Your task to perform on an android device: change keyboard looks Image 0: 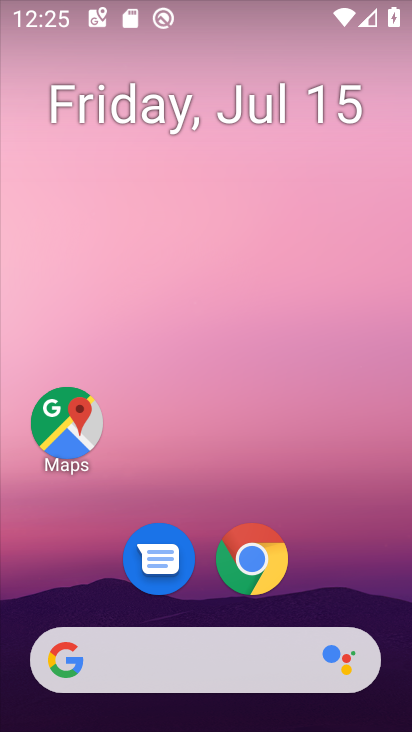
Step 0: drag from (370, 581) to (399, 88)
Your task to perform on an android device: change keyboard looks Image 1: 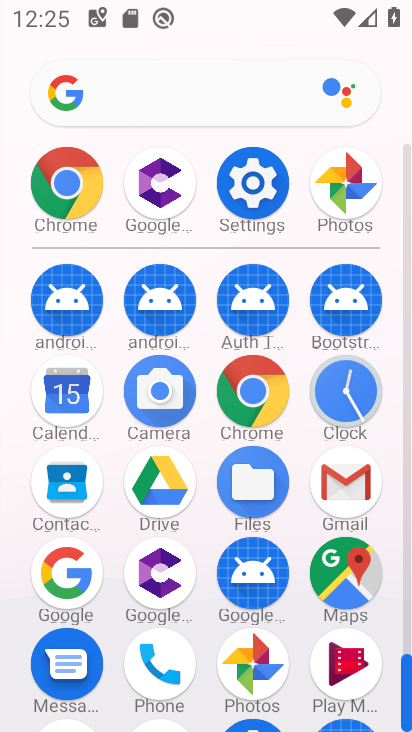
Step 1: click (261, 177)
Your task to perform on an android device: change keyboard looks Image 2: 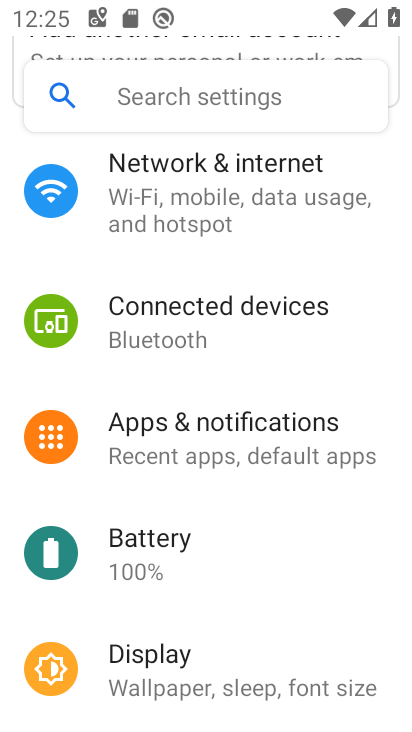
Step 2: drag from (360, 279) to (374, 380)
Your task to perform on an android device: change keyboard looks Image 3: 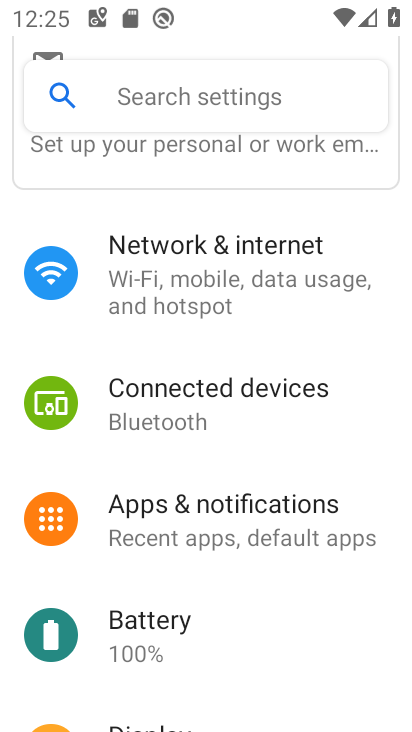
Step 3: drag from (371, 245) to (384, 390)
Your task to perform on an android device: change keyboard looks Image 4: 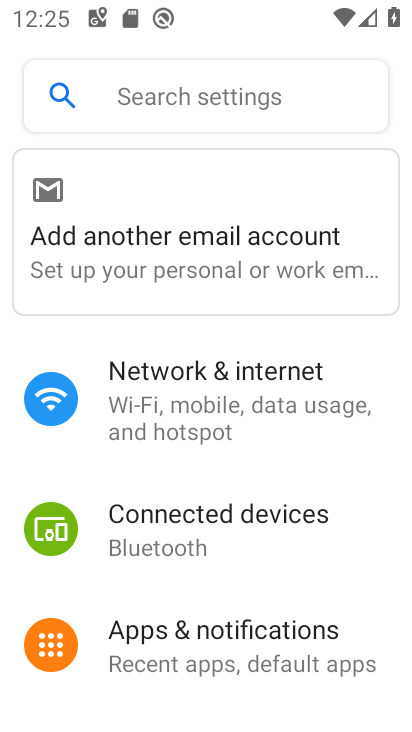
Step 4: drag from (371, 498) to (376, 435)
Your task to perform on an android device: change keyboard looks Image 5: 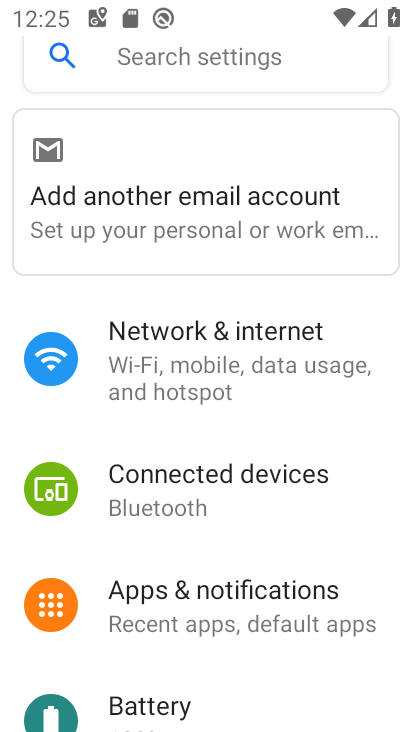
Step 5: drag from (370, 502) to (371, 405)
Your task to perform on an android device: change keyboard looks Image 6: 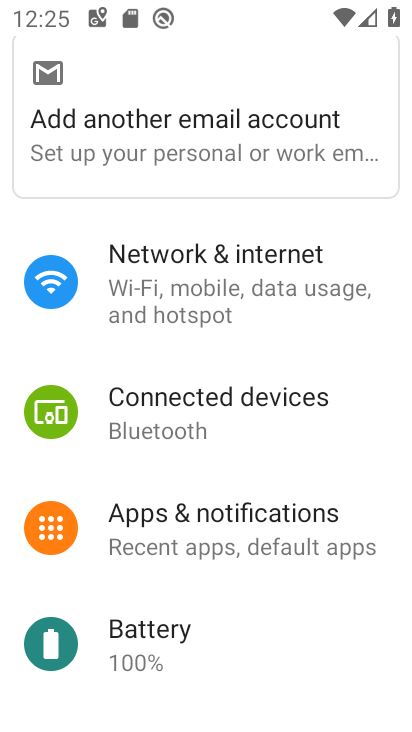
Step 6: drag from (363, 604) to (366, 525)
Your task to perform on an android device: change keyboard looks Image 7: 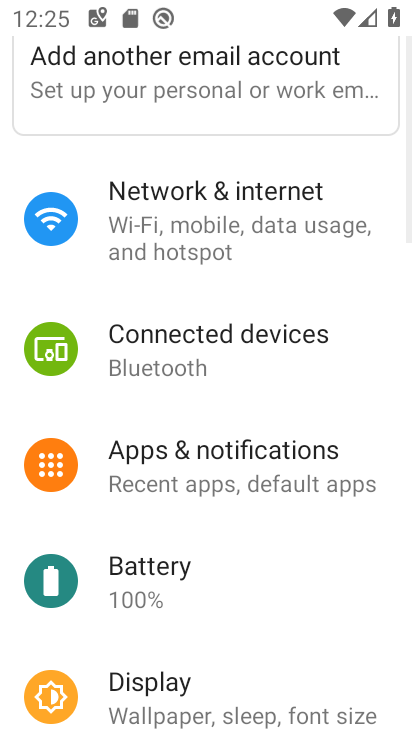
Step 7: drag from (355, 582) to (363, 515)
Your task to perform on an android device: change keyboard looks Image 8: 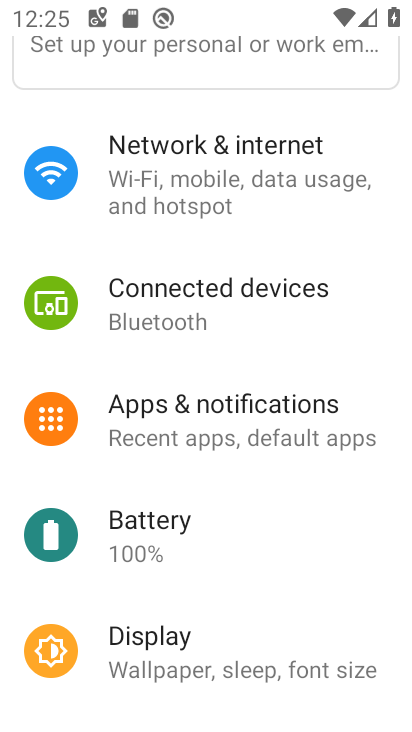
Step 8: drag from (347, 554) to (347, 470)
Your task to perform on an android device: change keyboard looks Image 9: 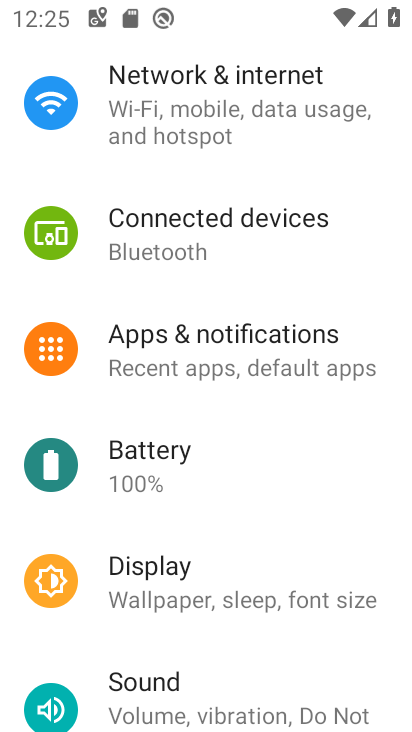
Step 9: drag from (340, 502) to (345, 444)
Your task to perform on an android device: change keyboard looks Image 10: 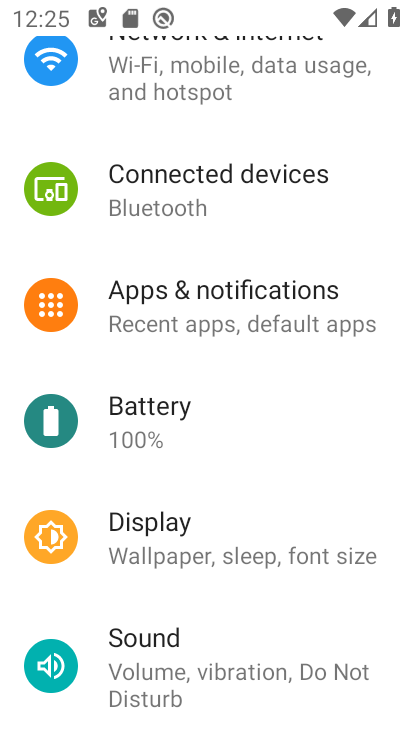
Step 10: drag from (346, 580) to (351, 520)
Your task to perform on an android device: change keyboard looks Image 11: 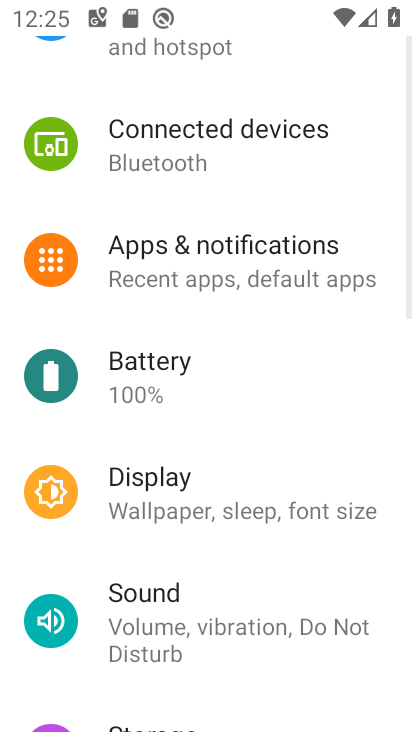
Step 11: drag from (357, 565) to (366, 493)
Your task to perform on an android device: change keyboard looks Image 12: 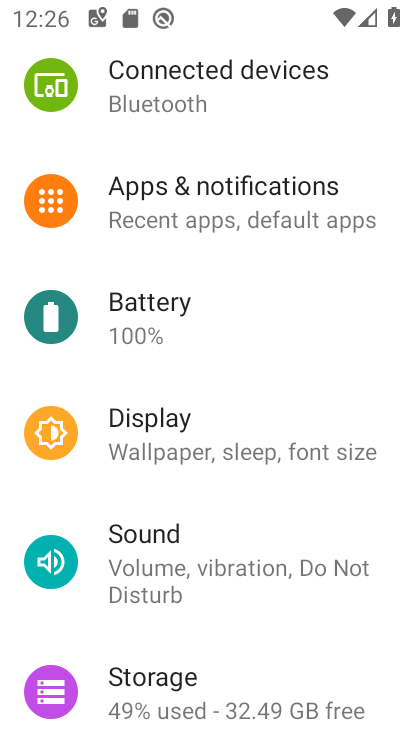
Step 12: drag from (368, 592) to (375, 524)
Your task to perform on an android device: change keyboard looks Image 13: 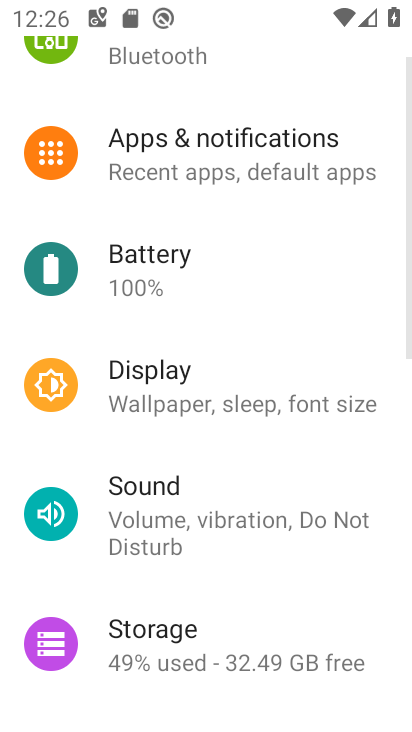
Step 13: drag from (364, 598) to (364, 513)
Your task to perform on an android device: change keyboard looks Image 14: 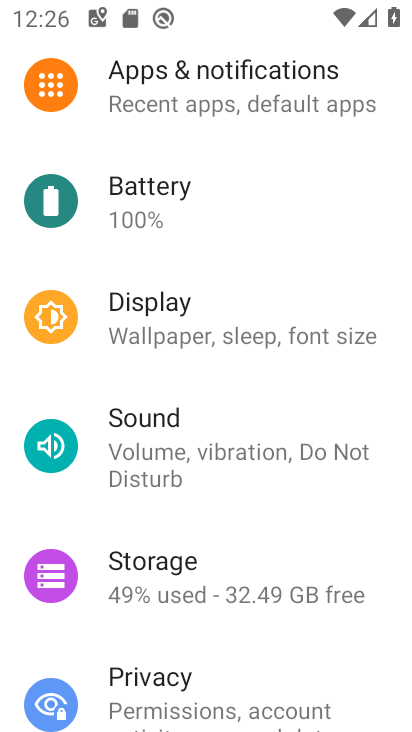
Step 14: drag from (333, 527) to (340, 463)
Your task to perform on an android device: change keyboard looks Image 15: 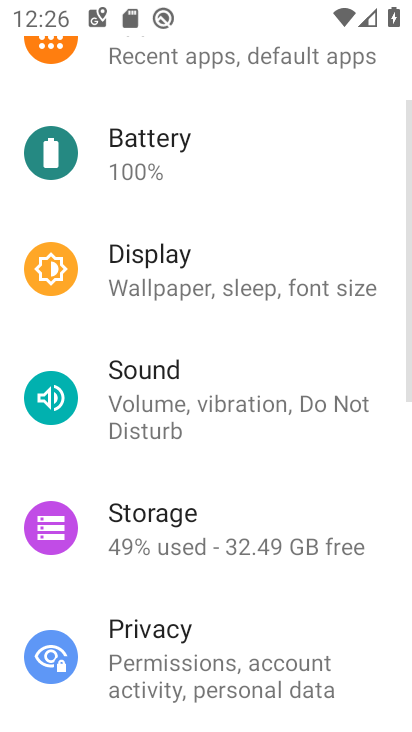
Step 15: drag from (337, 512) to (333, 439)
Your task to perform on an android device: change keyboard looks Image 16: 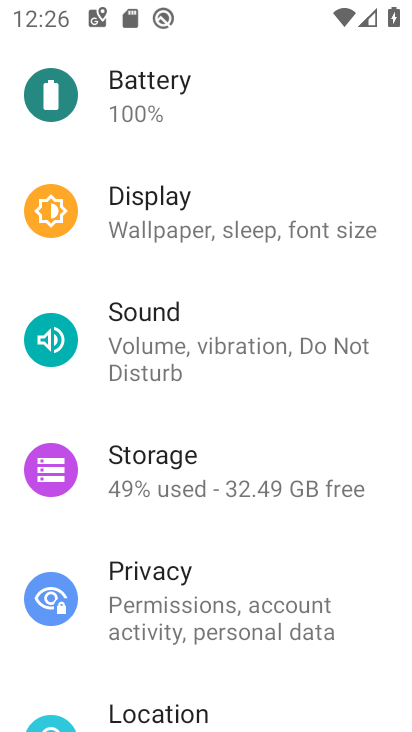
Step 16: drag from (334, 516) to (331, 416)
Your task to perform on an android device: change keyboard looks Image 17: 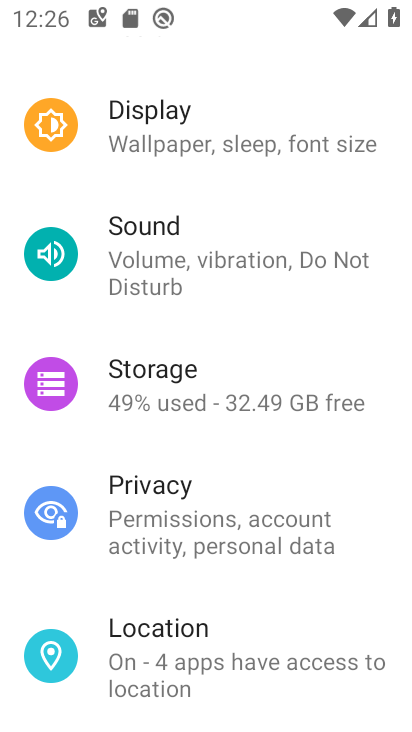
Step 17: drag from (332, 534) to (336, 456)
Your task to perform on an android device: change keyboard looks Image 18: 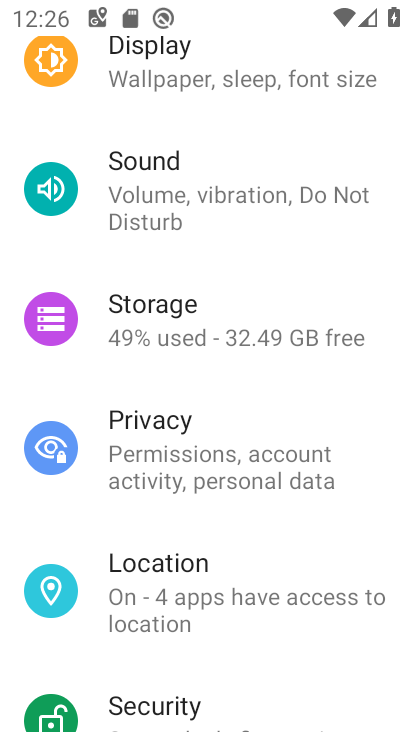
Step 18: drag from (335, 531) to (329, 458)
Your task to perform on an android device: change keyboard looks Image 19: 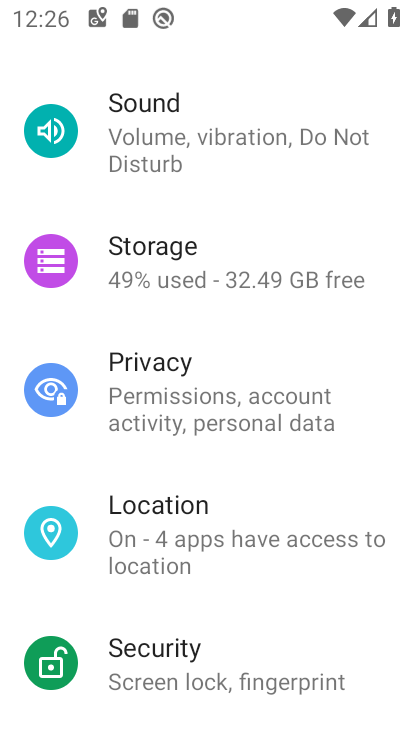
Step 19: drag from (327, 530) to (327, 419)
Your task to perform on an android device: change keyboard looks Image 20: 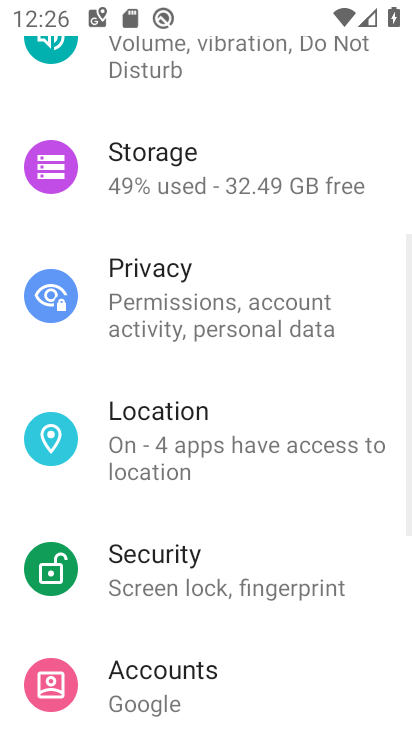
Step 20: drag from (335, 523) to (334, 419)
Your task to perform on an android device: change keyboard looks Image 21: 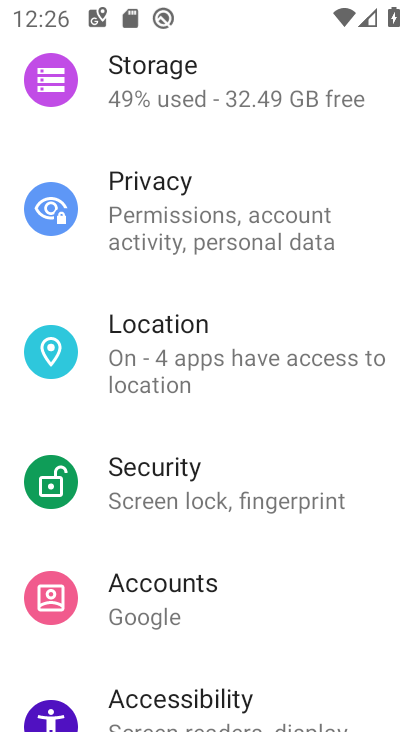
Step 21: drag from (330, 563) to (338, 457)
Your task to perform on an android device: change keyboard looks Image 22: 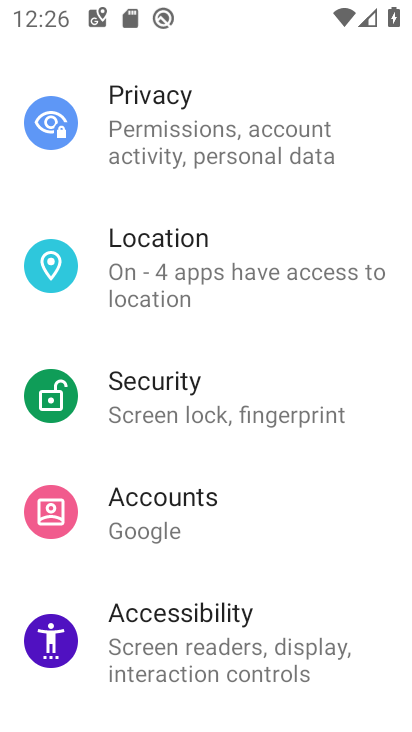
Step 22: drag from (323, 525) to (331, 408)
Your task to perform on an android device: change keyboard looks Image 23: 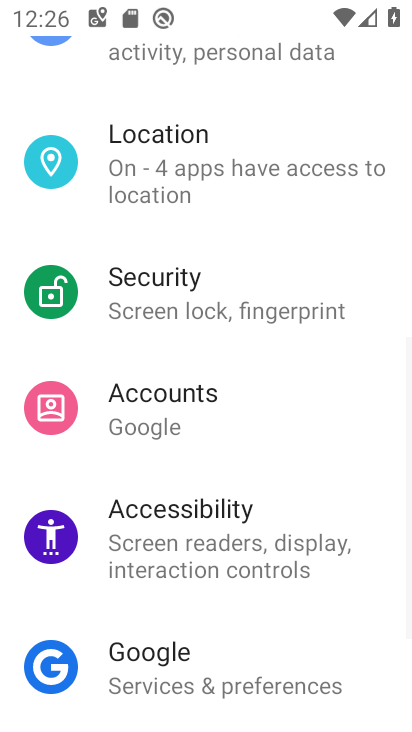
Step 23: drag from (338, 580) to (336, 461)
Your task to perform on an android device: change keyboard looks Image 24: 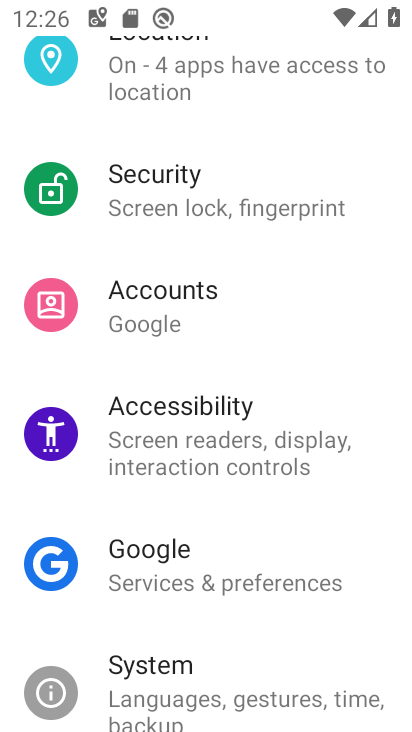
Step 24: drag from (340, 630) to (334, 469)
Your task to perform on an android device: change keyboard looks Image 25: 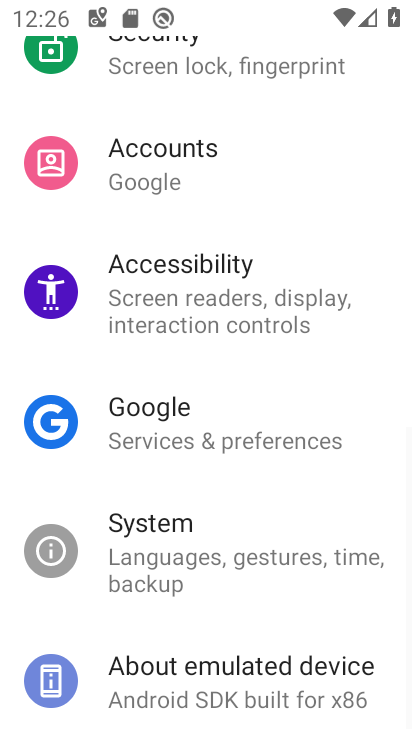
Step 25: click (325, 549)
Your task to perform on an android device: change keyboard looks Image 26: 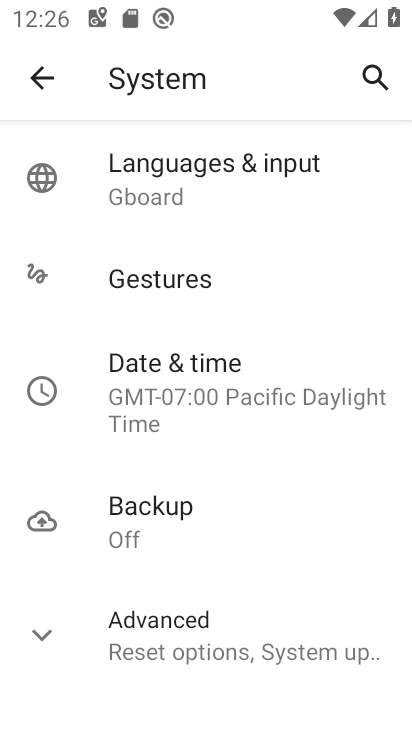
Step 26: click (244, 186)
Your task to perform on an android device: change keyboard looks Image 27: 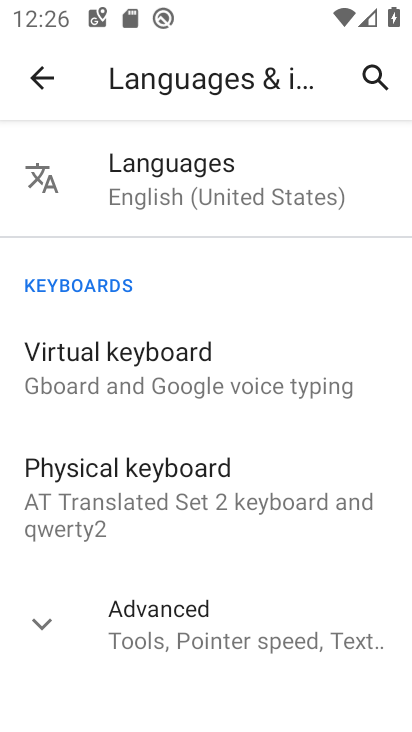
Step 27: click (233, 383)
Your task to perform on an android device: change keyboard looks Image 28: 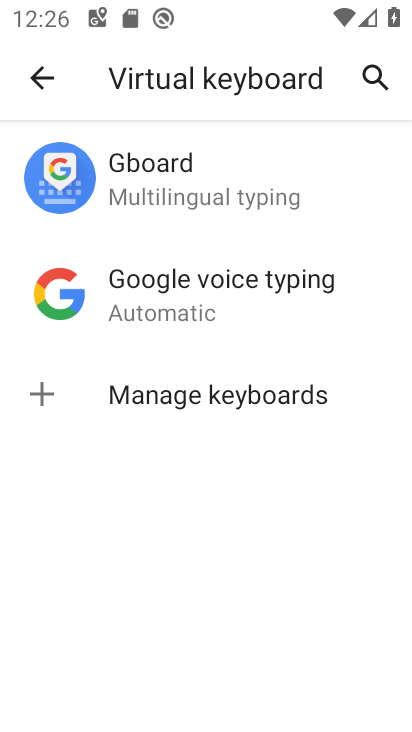
Step 28: click (258, 210)
Your task to perform on an android device: change keyboard looks Image 29: 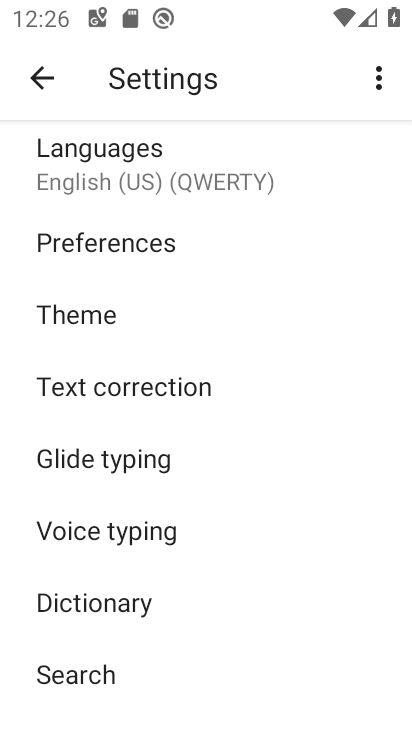
Step 29: click (120, 336)
Your task to perform on an android device: change keyboard looks Image 30: 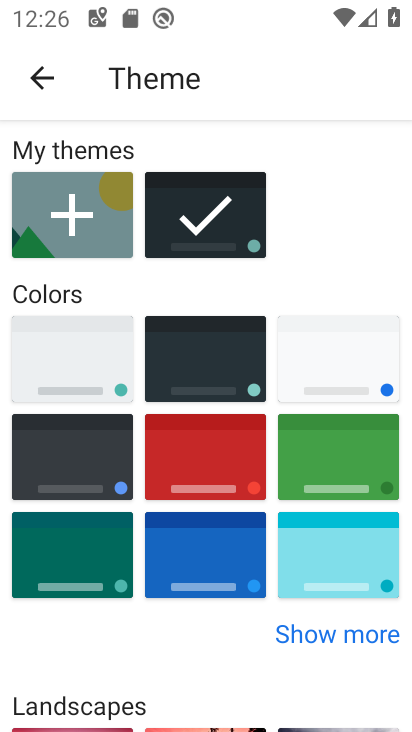
Step 30: click (203, 431)
Your task to perform on an android device: change keyboard looks Image 31: 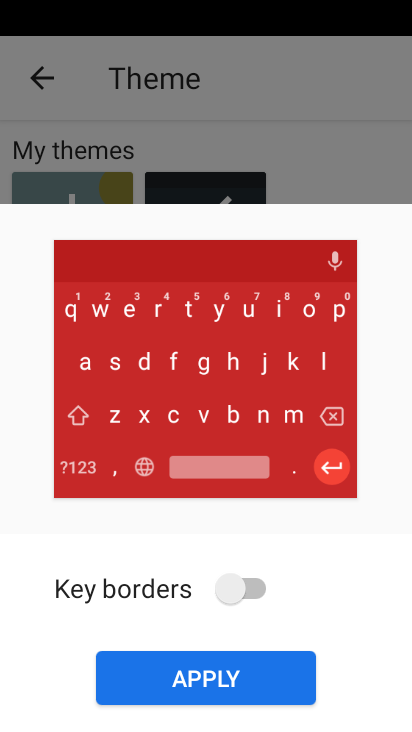
Step 31: click (221, 684)
Your task to perform on an android device: change keyboard looks Image 32: 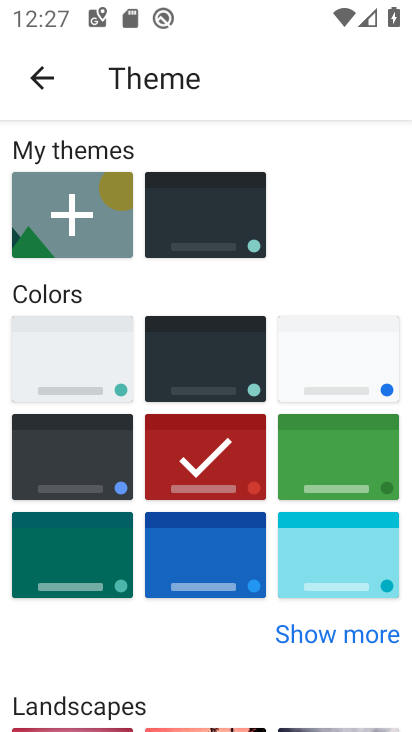
Step 32: task complete